Your task to perform on an android device: Go to settings Image 0: 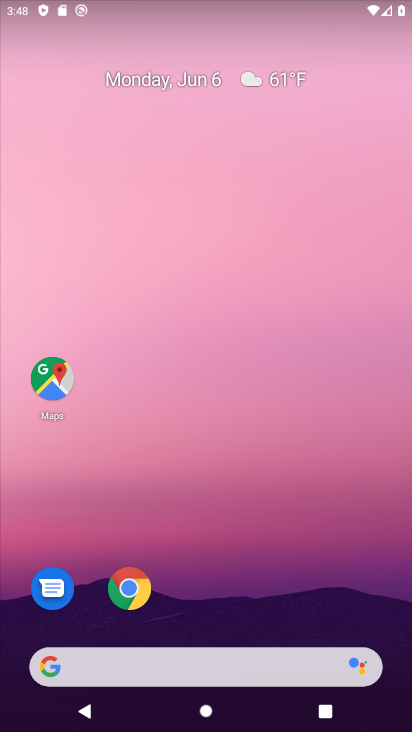
Step 0: drag from (248, 701) to (124, 238)
Your task to perform on an android device: Go to settings Image 1: 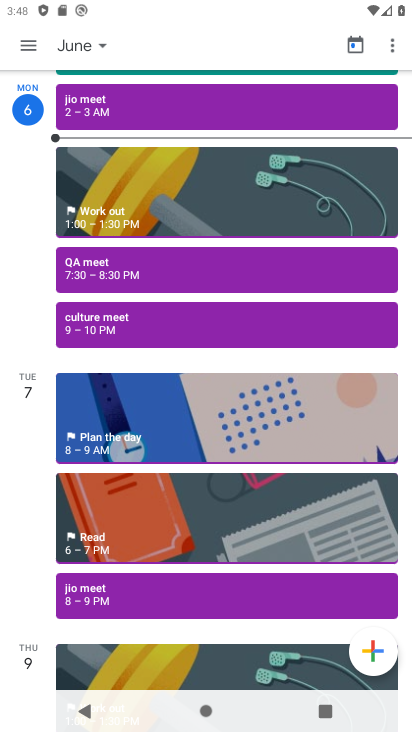
Step 1: press back button
Your task to perform on an android device: Go to settings Image 2: 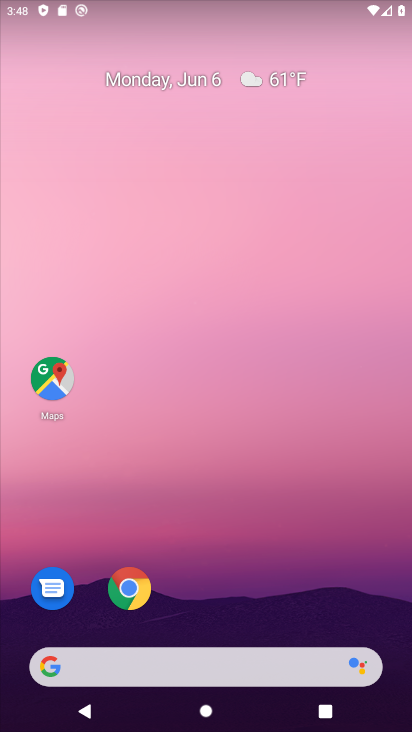
Step 2: click (183, 152)
Your task to perform on an android device: Go to settings Image 3: 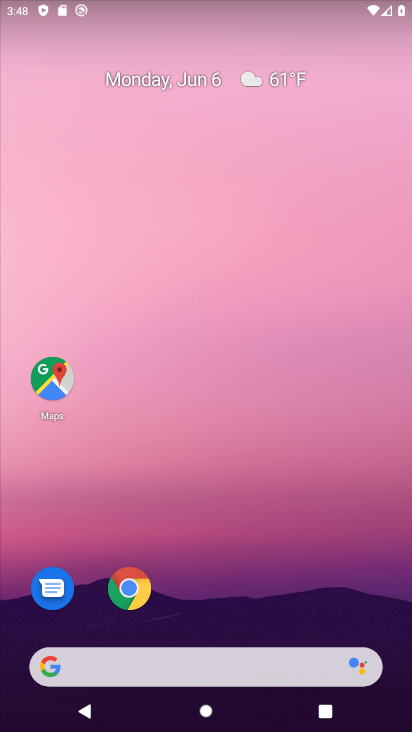
Step 3: drag from (278, 571) to (199, 239)
Your task to perform on an android device: Go to settings Image 4: 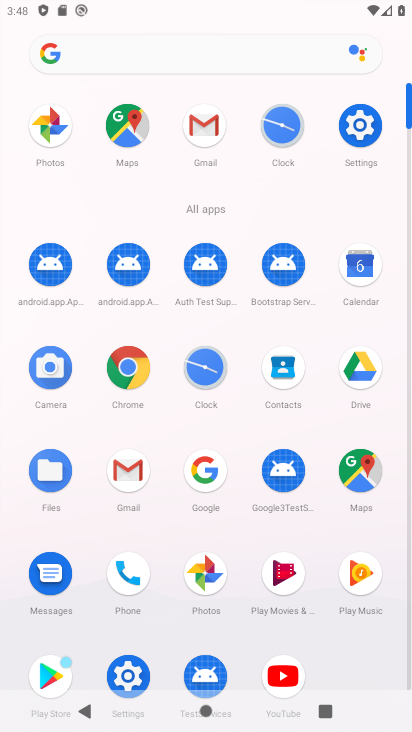
Step 4: click (129, 380)
Your task to perform on an android device: Go to settings Image 5: 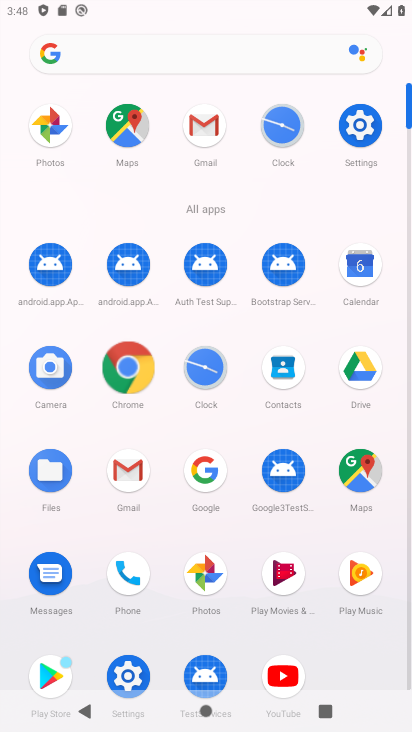
Step 5: click (119, 364)
Your task to perform on an android device: Go to settings Image 6: 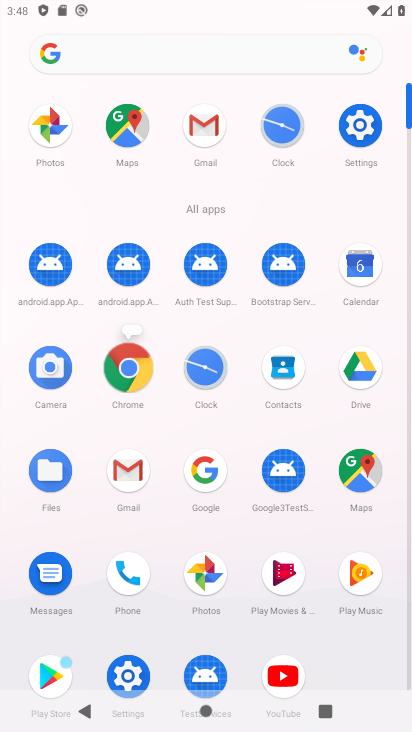
Step 6: click (119, 364)
Your task to perform on an android device: Go to settings Image 7: 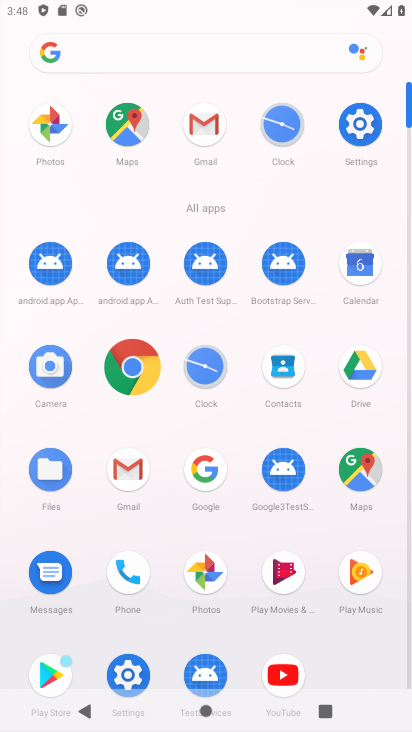
Step 7: click (121, 367)
Your task to perform on an android device: Go to settings Image 8: 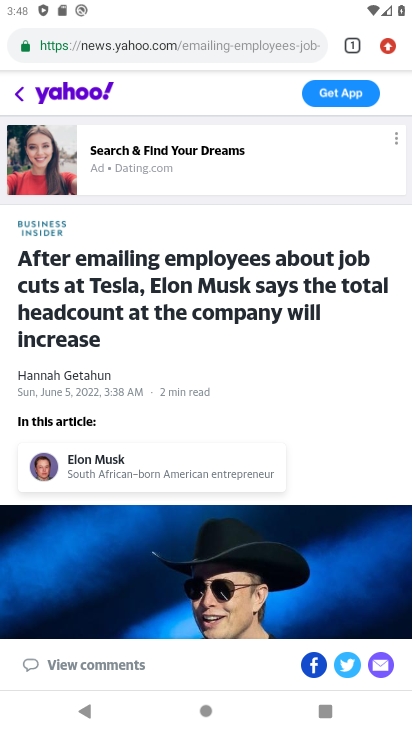
Step 8: press back button
Your task to perform on an android device: Go to settings Image 9: 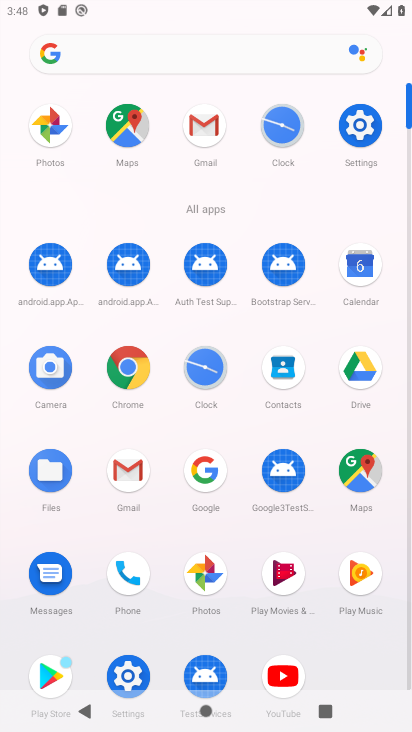
Step 9: click (344, 124)
Your task to perform on an android device: Go to settings Image 10: 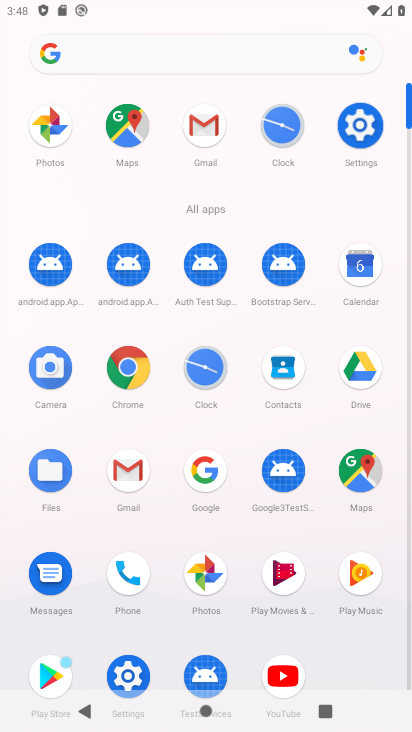
Step 10: click (345, 123)
Your task to perform on an android device: Go to settings Image 11: 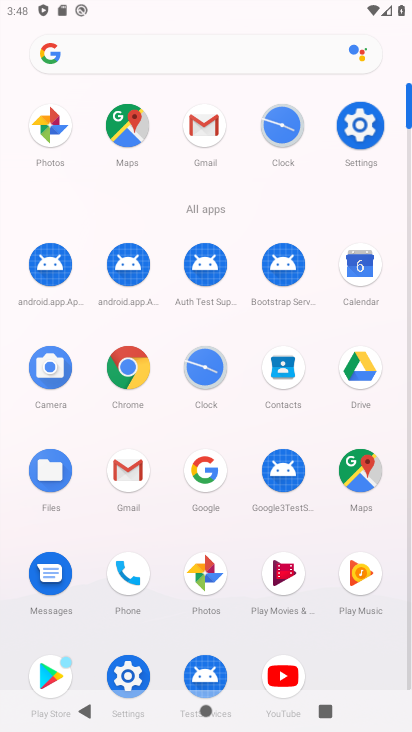
Step 11: click (345, 123)
Your task to perform on an android device: Go to settings Image 12: 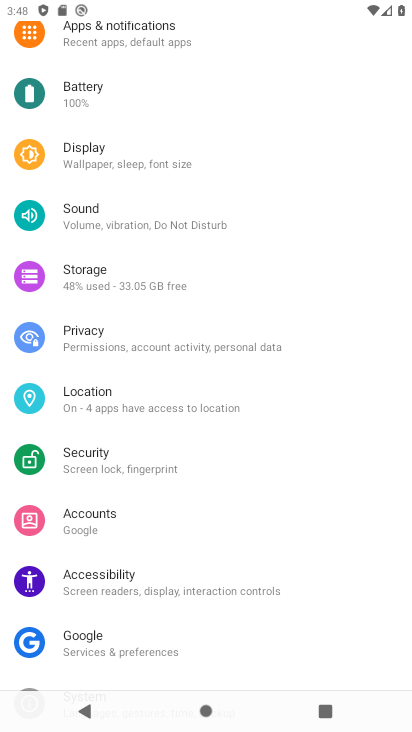
Step 12: click (345, 123)
Your task to perform on an android device: Go to settings Image 13: 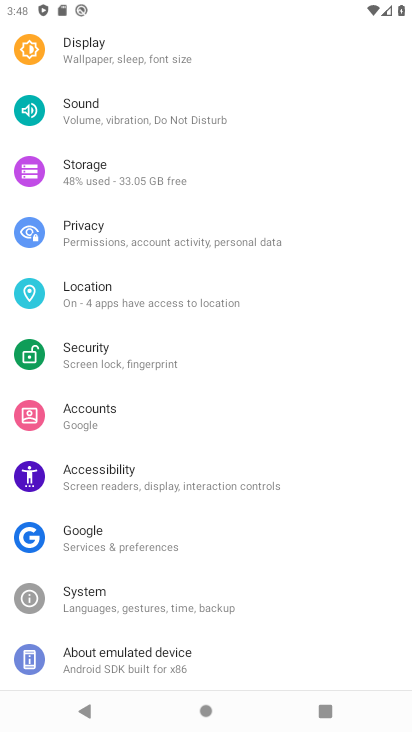
Step 13: task complete